Your task to perform on an android device: uninstall "Fetch Rewards" Image 0: 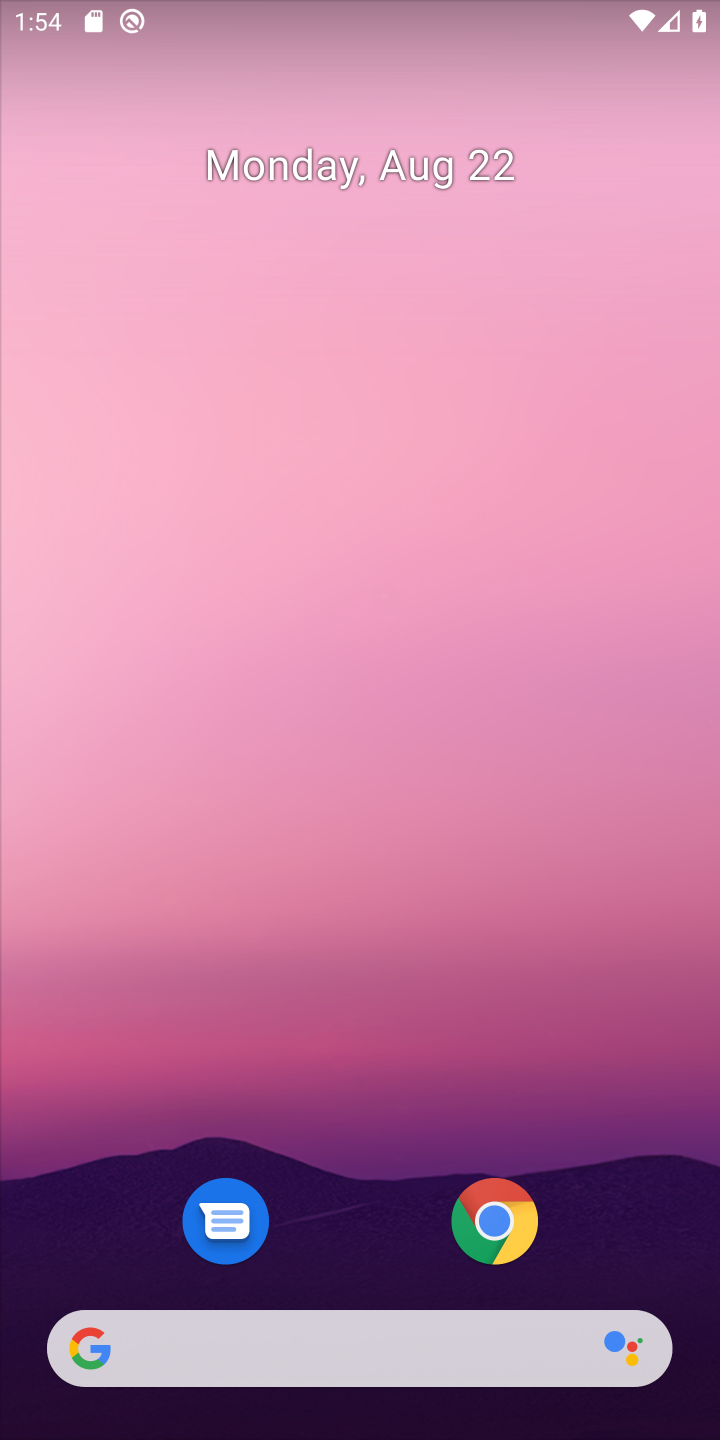
Step 0: drag from (370, 1250) to (400, 207)
Your task to perform on an android device: uninstall "Fetch Rewards" Image 1: 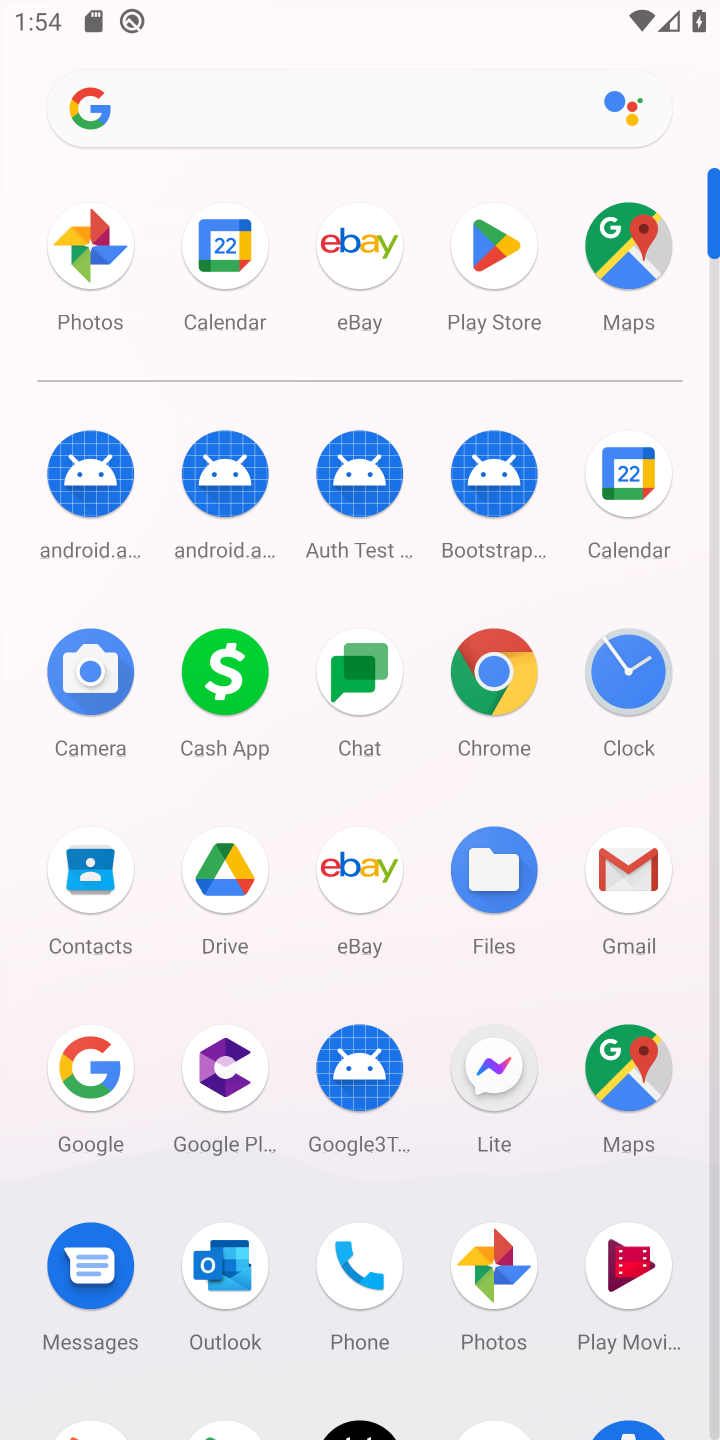
Step 1: click (492, 252)
Your task to perform on an android device: uninstall "Fetch Rewards" Image 2: 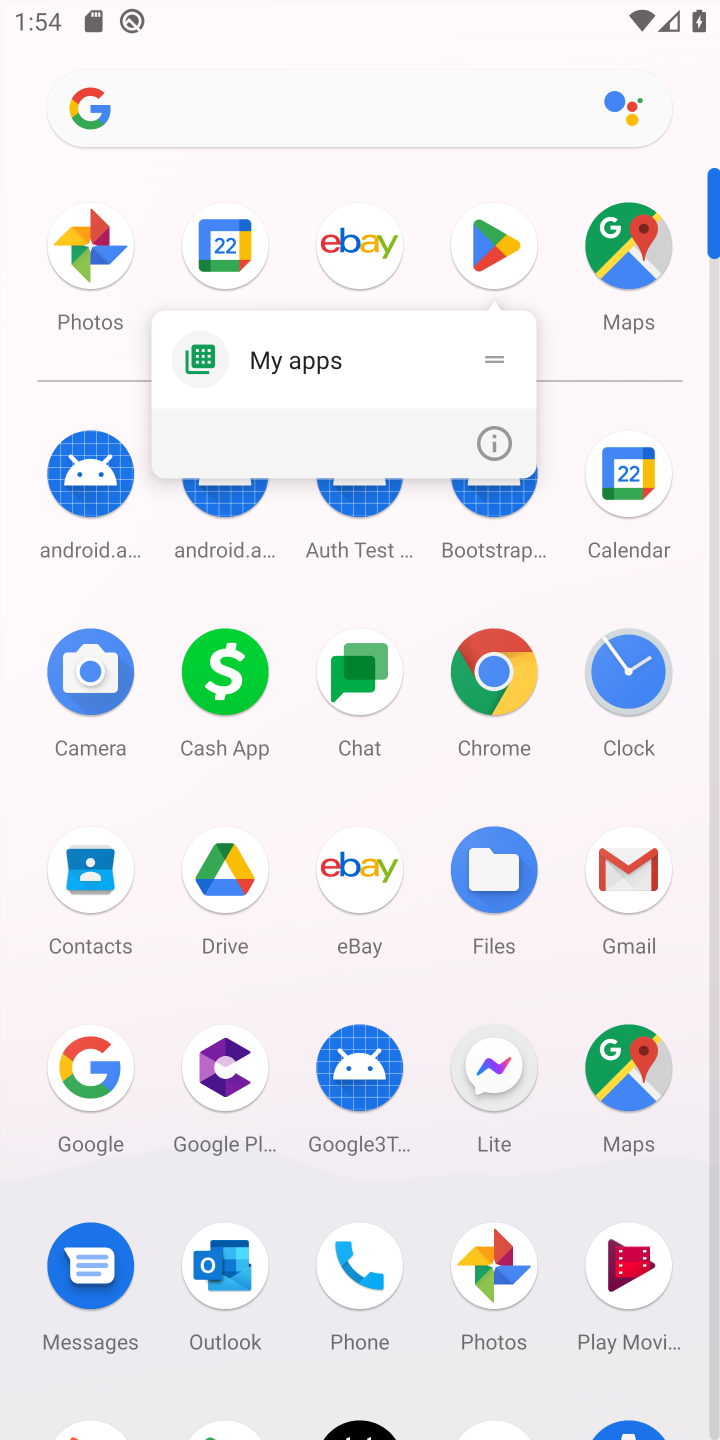
Step 2: click (489, 233)
Your task to perform on an android device: uninstall "Fetch Rewards" Image 3: 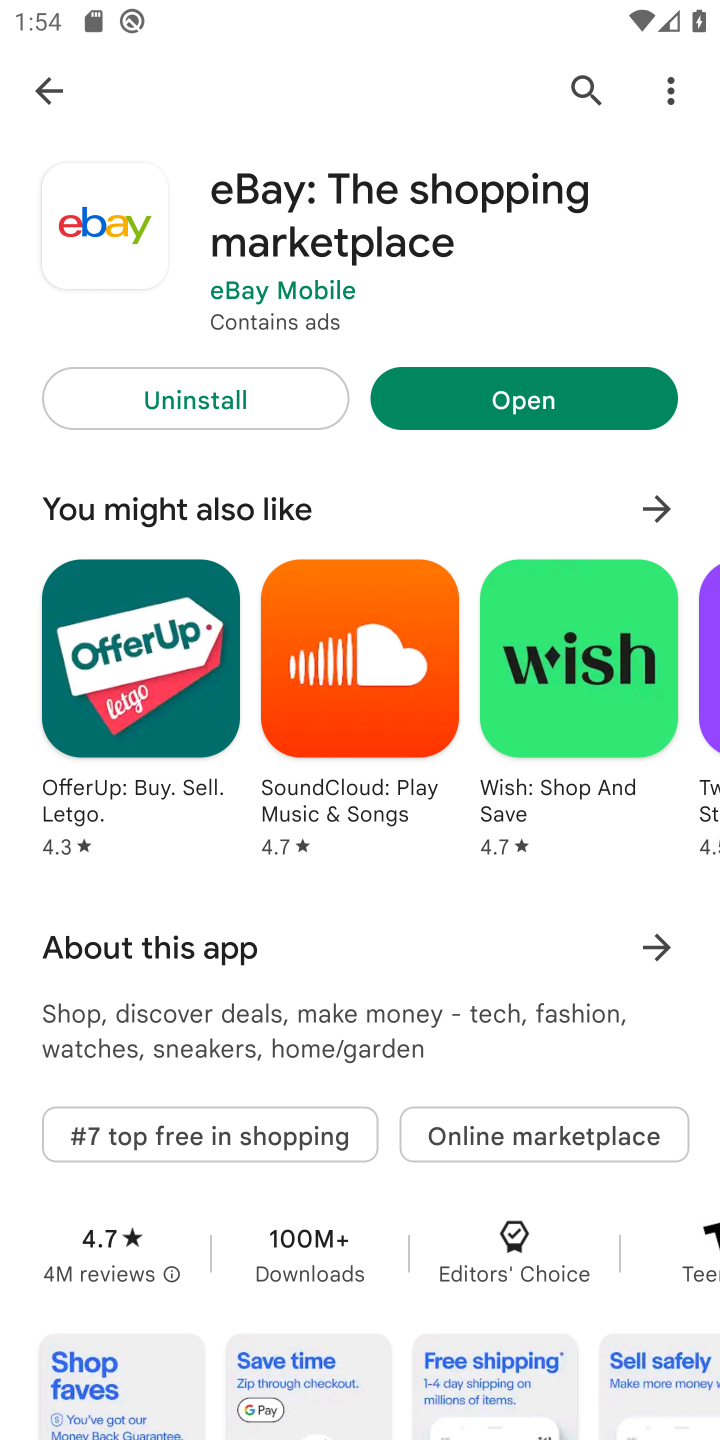
Step 3: click (583, 89)
Your task to perform on an android device: uninstall "Fetch Rewards" Image 4: 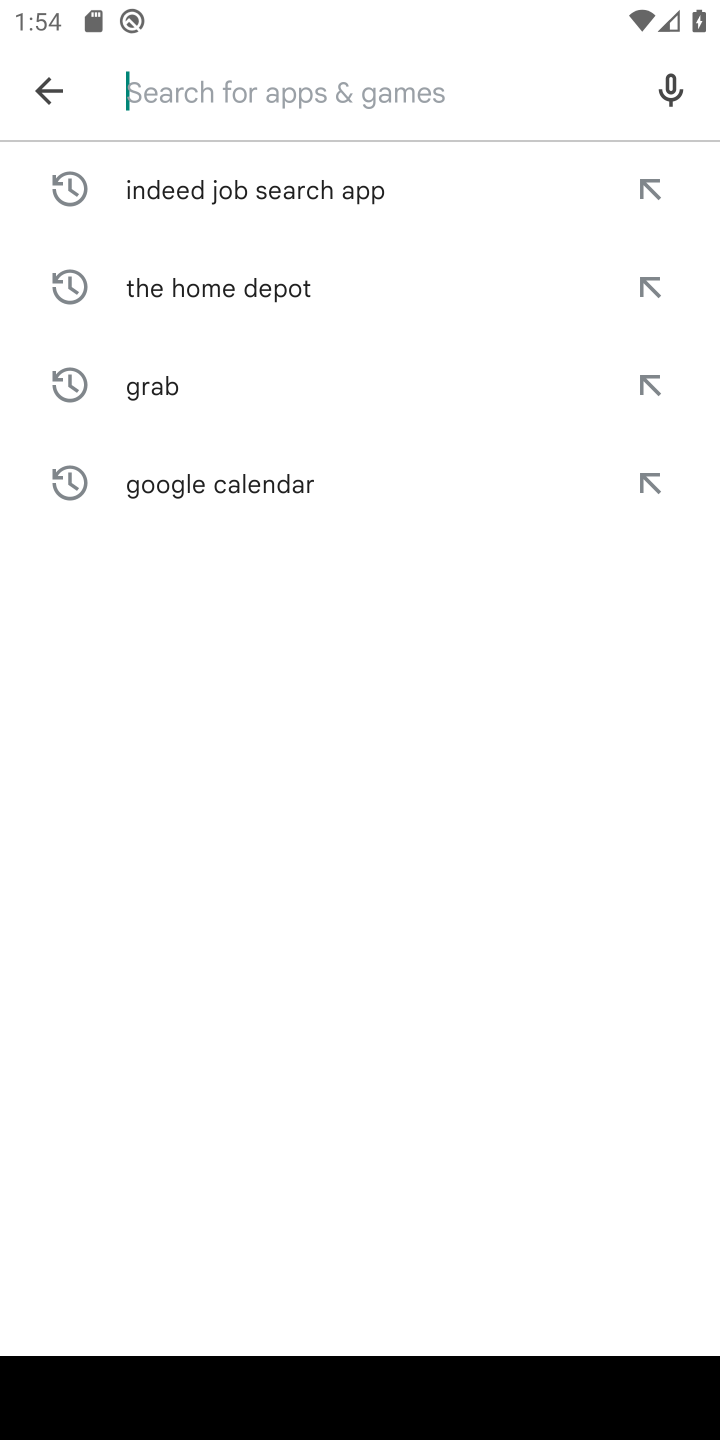
Step 4: type "Fetch Rewards"
Your task to perform on an android device: uninstall "Fetch Rewards" Image 5: 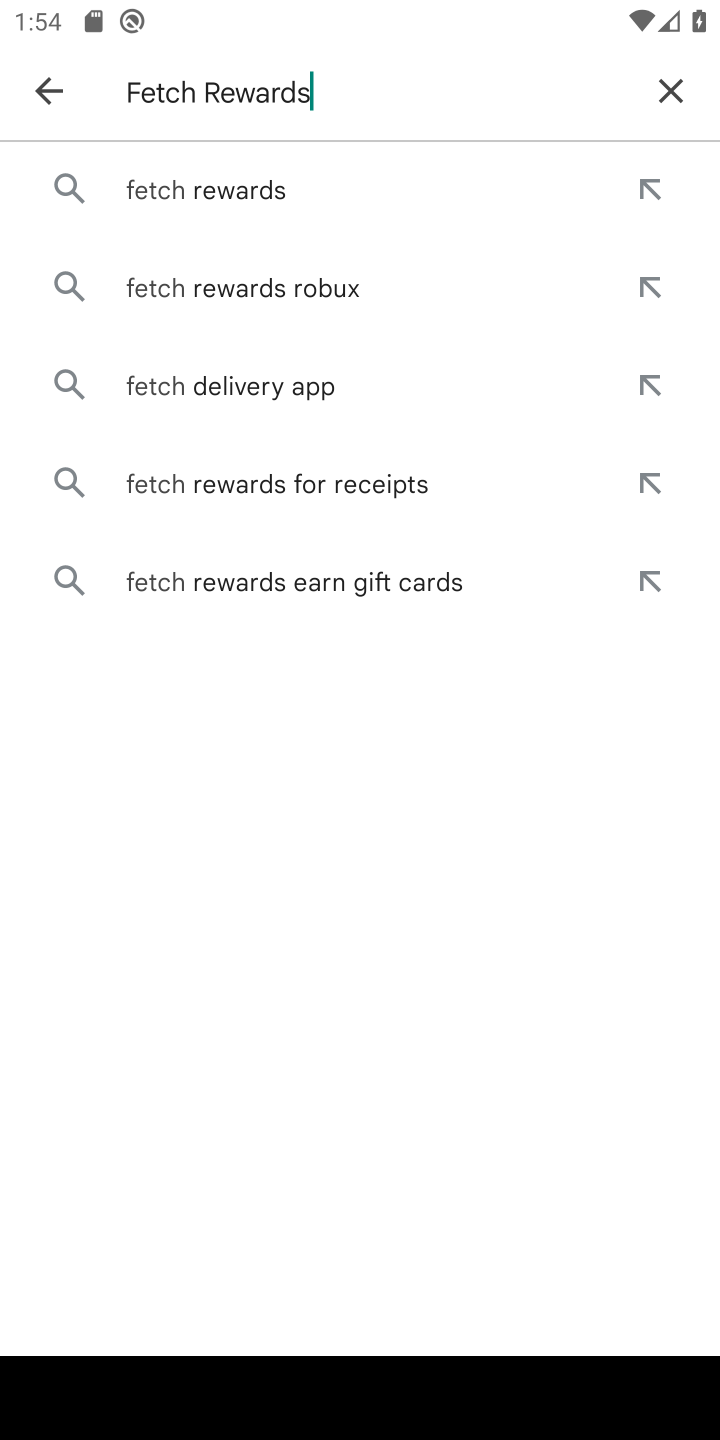
Step 5: type ""
Your task to perform on an android device: uninstall "Fetch Rewards" Image 6: 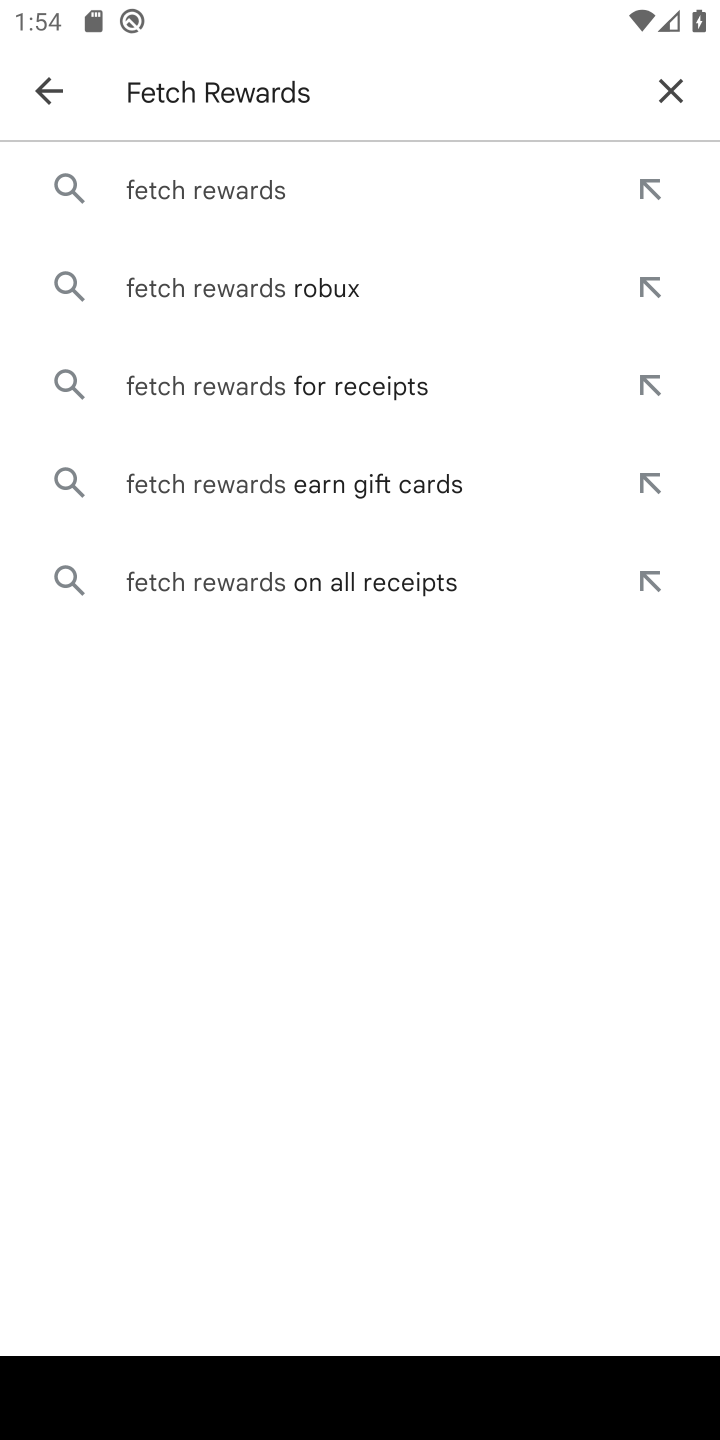
Step 6: click (311, 184)
Your task to perform on an android device: uninstall "Fetch Rewards" Image 7: 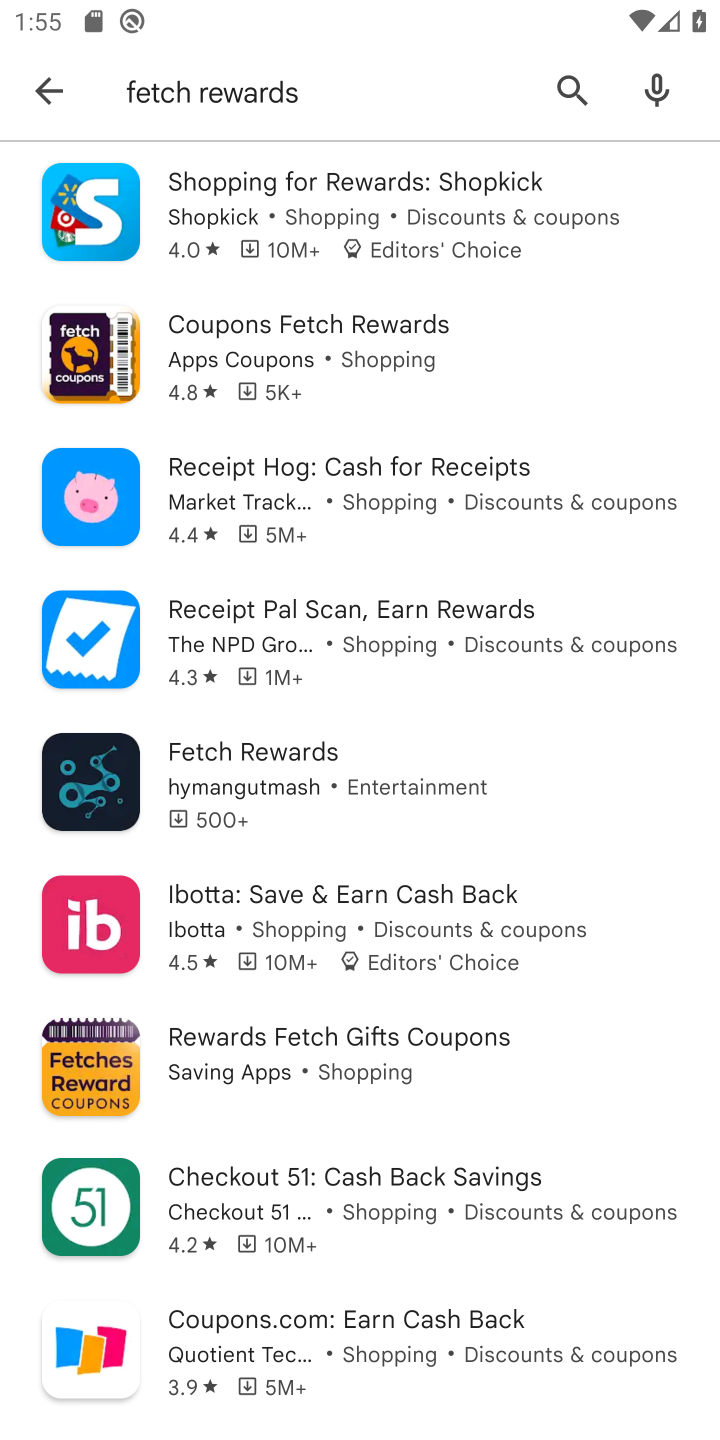
Step 7: task complete